Your task to perform on an android device: Open Youtube and go to "Your channel" Image 0: 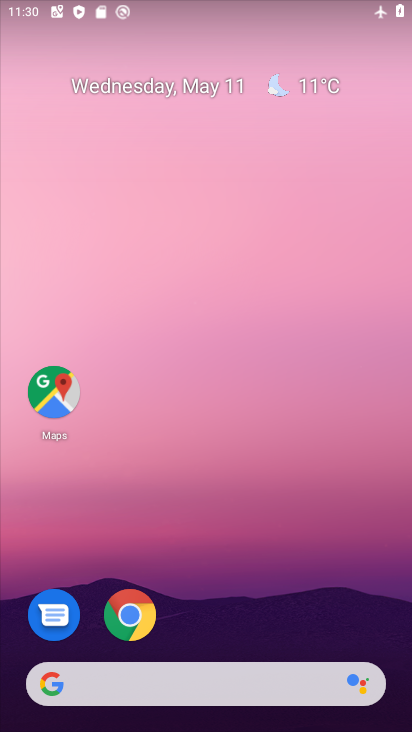
Step 0: drag from (279, 583) to (328, 59)
Your task to perform on an android device: Open Youtube and go to "Your channel" Image 1: 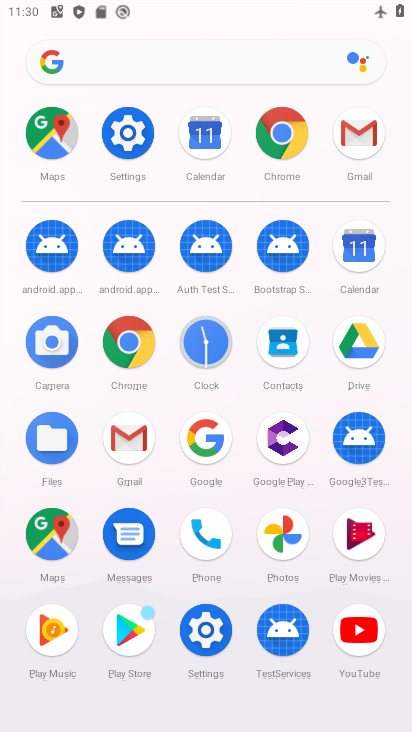
Step 1: click (367, 627)
Your task to perform on an android device: Open Youtube and go to "Your channel" Image 2: 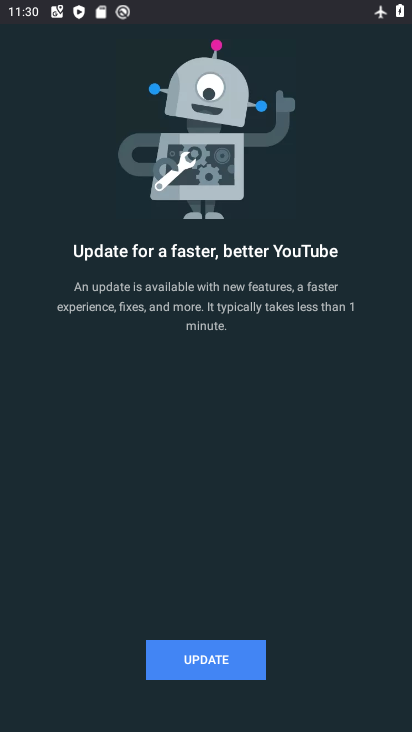
Step 2: click (189, 646)
Your task to perform on an android device: Open Youtube and go to "Your channel" Image 3: 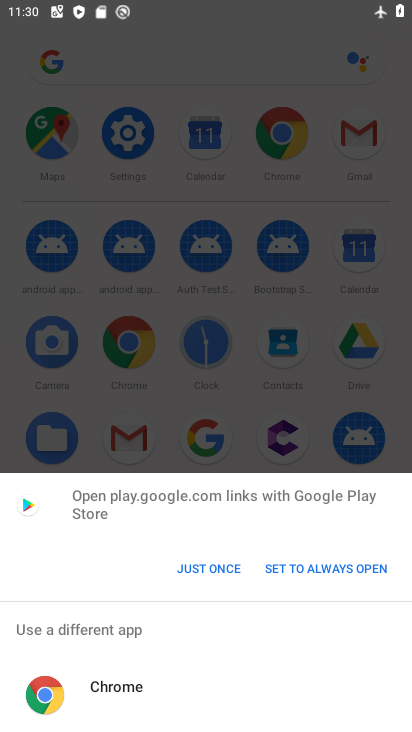
Step 3: click (184, 567)
Your task to perform on an android device: Open Youtube and go to "Your channel" Image 4: 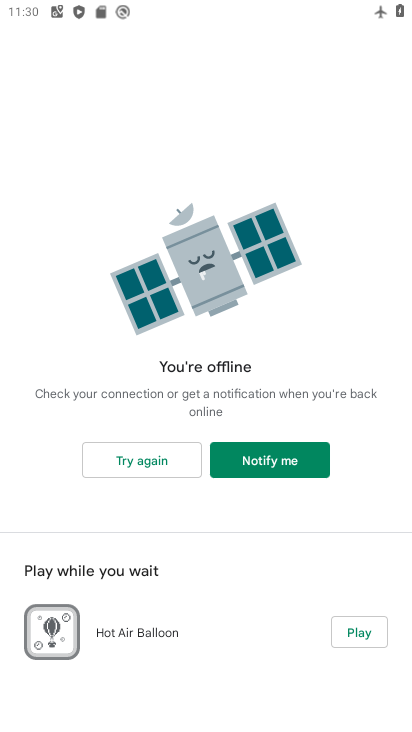
Step 4: task complete